Your task to perform on an android device: Go to notification settings Image 0: 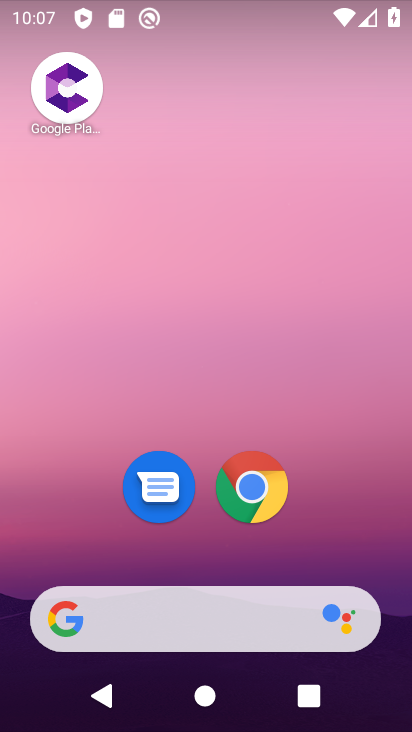
Step 0: drag from (382, 706) to (361, 109)
Your task to perform on an android device: Go to notification settings Image 1: 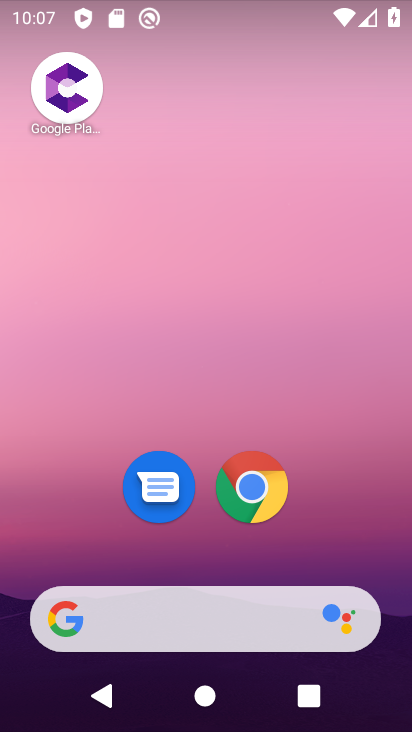
Step 1: drag from (389, 595) to (389, 212)
Your task to perform on an android device: Go to notification settings Image 2: 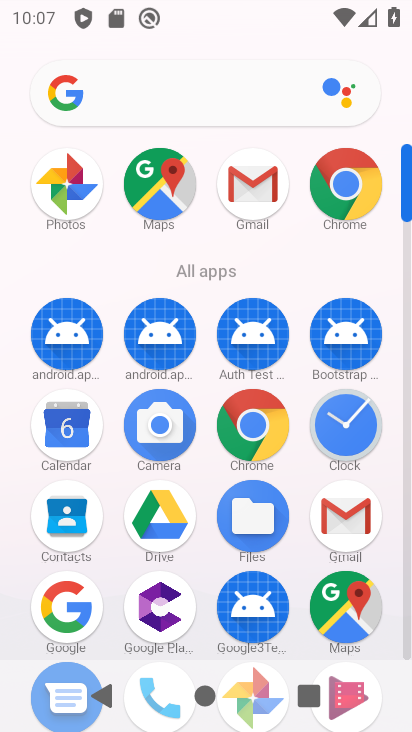
Step 2: drag from (200, 567) to (194, 360)
Your task to perform on an android device: Go to notification settings Image 3: 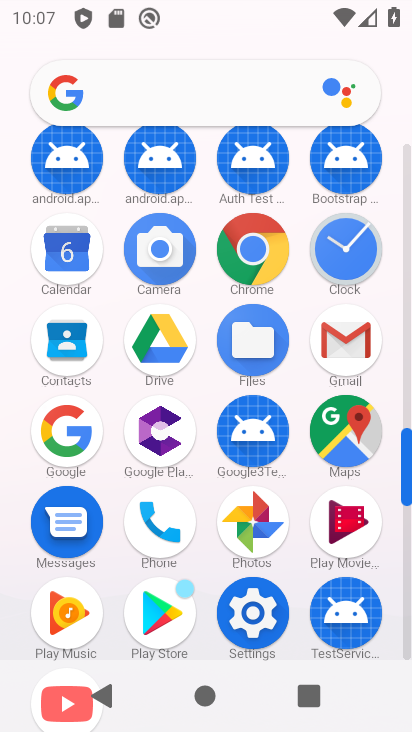
Step 3: click (249, 623)
Your task to perform on an android device: Go to notification settings Image 4: 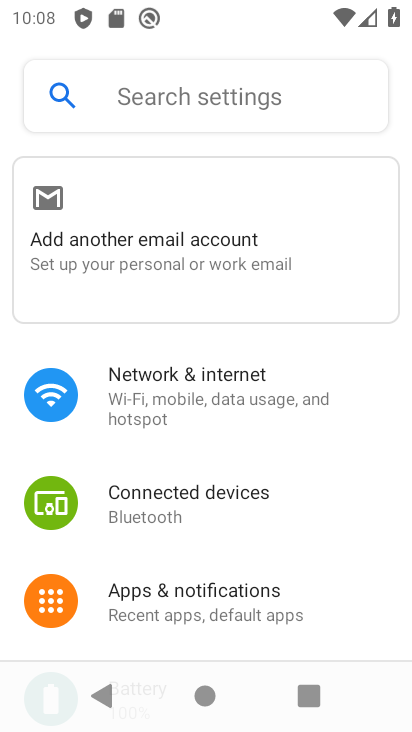
Step 4: click (228, 584)
Your task to perform on an android device: Go to notification settings Image 5: 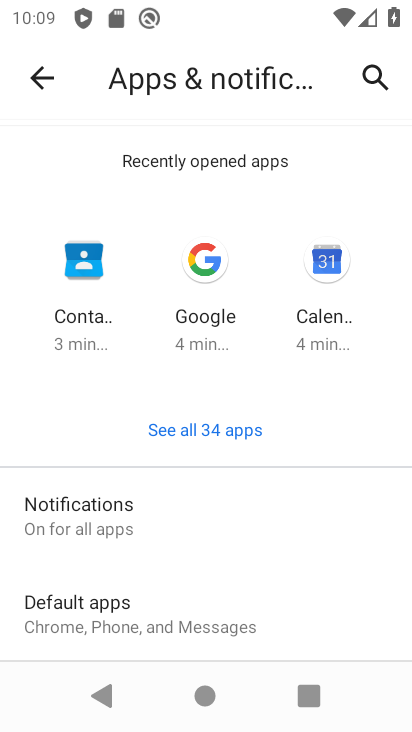
Step 5: click (133, 520)
Your task to perform on an android device: Go to notification settings Image 6: 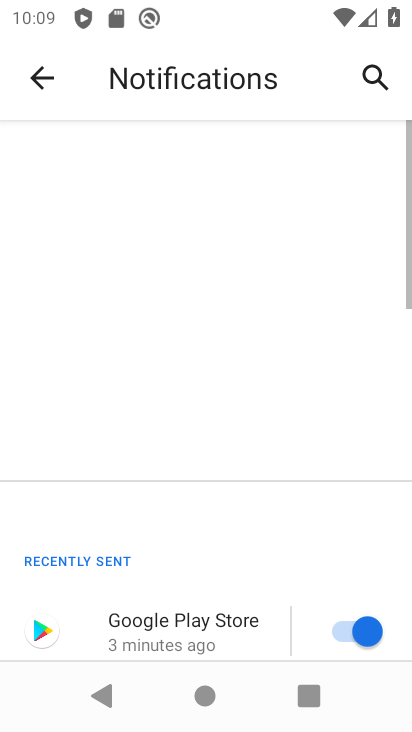
Step 6: task complete